Your task to perform on an android device: open sync settings in chrome Image 0: 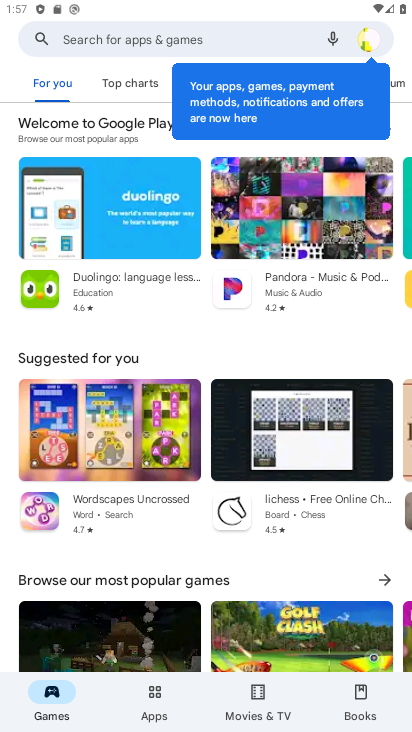
Step 0: press home button
Your task to perform on an android device: open sync settings in chrome Image 1: 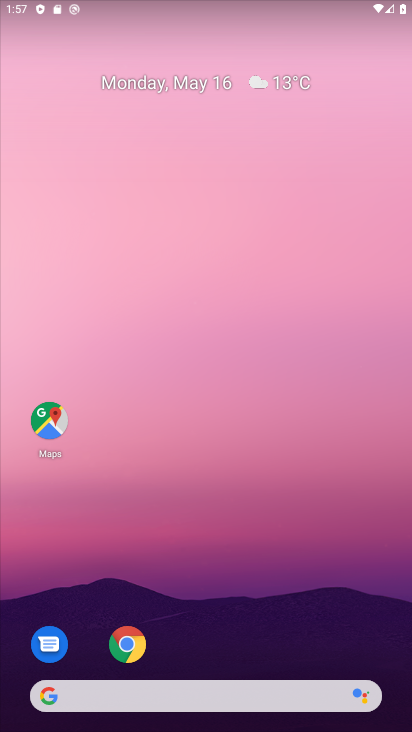
Step 1: click (119, 637)
Your task to perform on an android device: open sync settings in chrome Image 2: 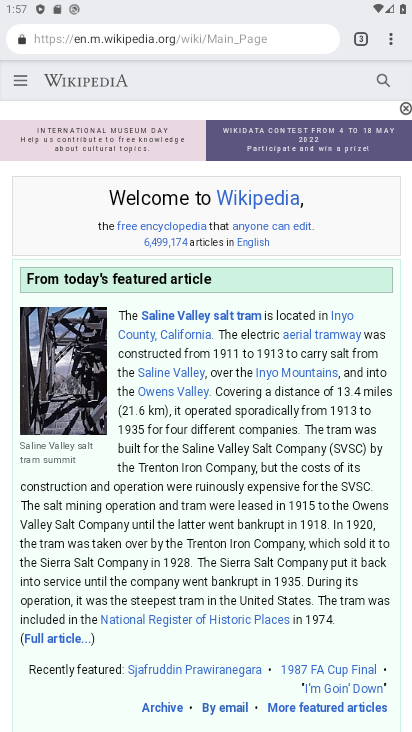
Step 2: click (388, 43)
Your task to perform on an android device: open sync settings in chrome Image 3: 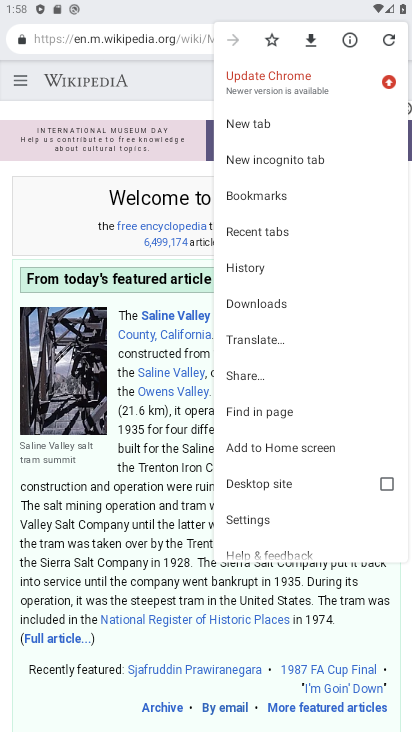
Step 3: click (250, 527)
Your task to perform on an android device: open sync settings in chrome Image 4: 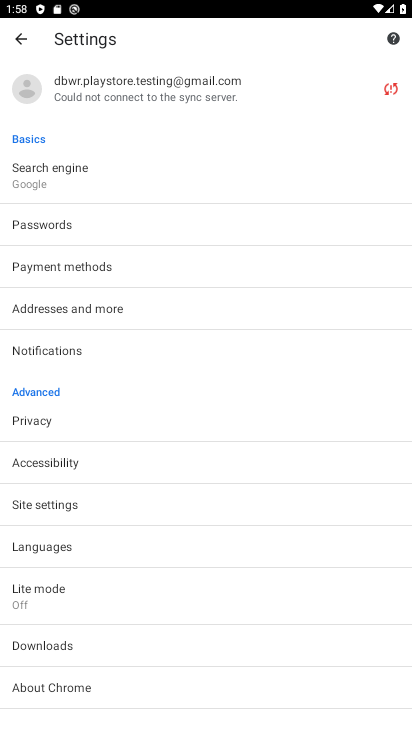
Step 4: drag from (242, 578) to (196, 105)
Your task to perform on an android device: open sync settings in chrome Image 5: 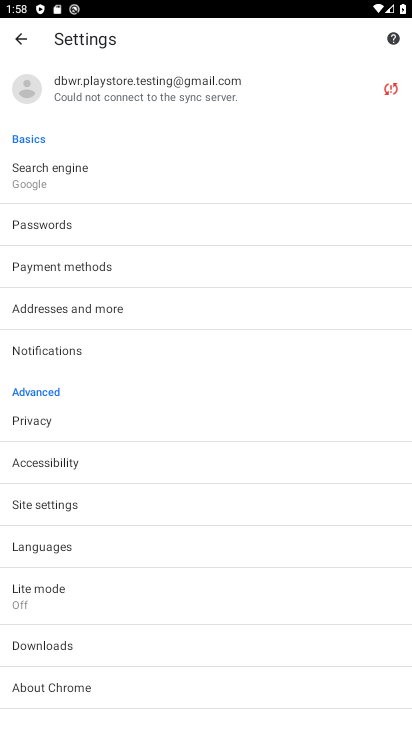
Step 5: drag from (120, 571) to (50, 114)
Your task to perform on an android device: open sync settings in chrome Image 6: 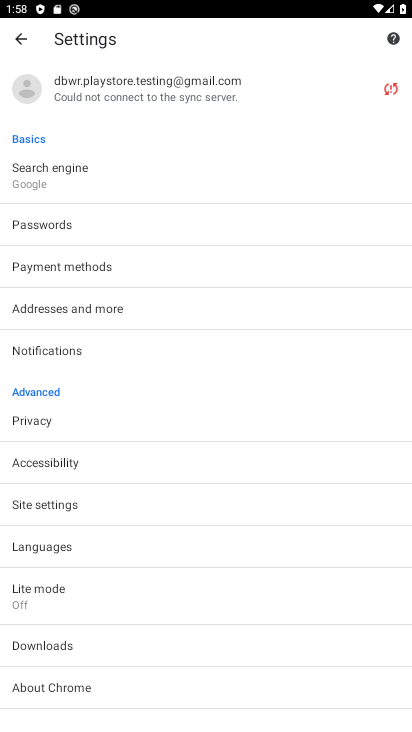
Step 6: click (30, 511)
Your task to perform on an android device: open sync settings in chrome Image 7: 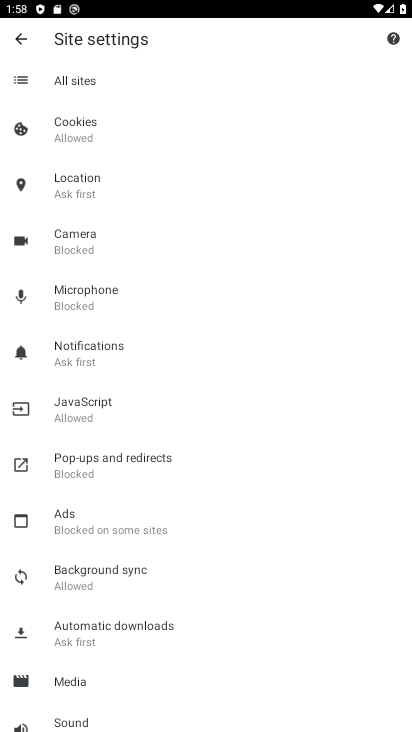
Step 7: drag from (111, 642) to (57, 152)
Your task to perform on an android device: open sync settings in chrome Image 8: 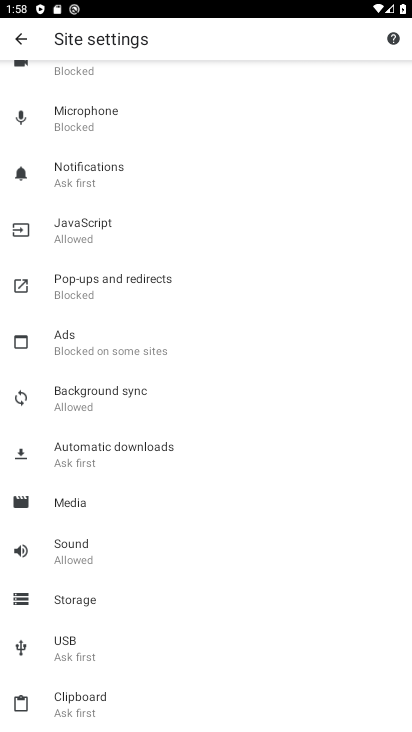
Step 8: drag from (153, 570) to (61, 179)
Your task to perform on an android device: open sync settings in chrome Image 9: 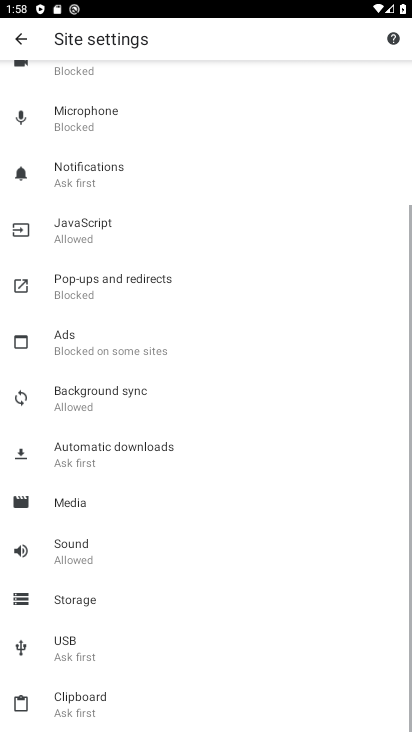
Step 9: drag from (61, 179) to (138, 710)
Your task to perform on an android device: open sync settings in chrome Image 10: 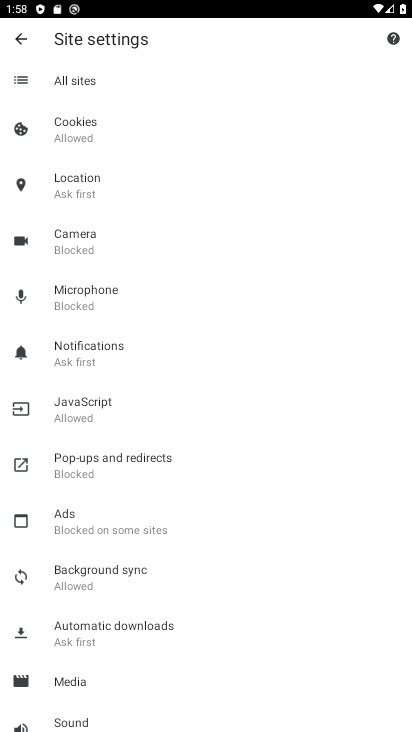
Step 10: click (24, 76)
Your task to perform on an android device: open sync settings in chrome Image 11: 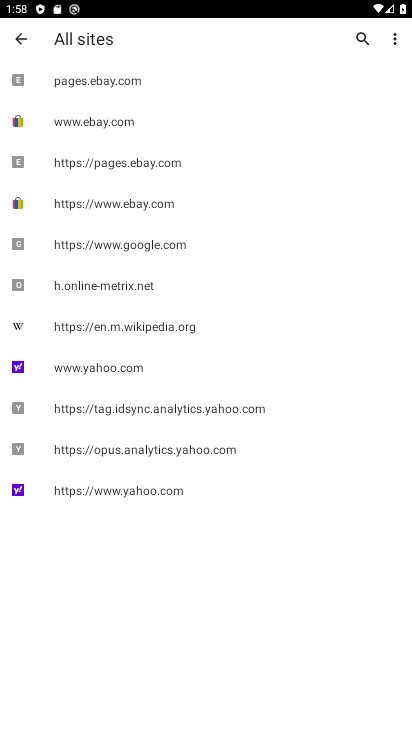
Step 11: task complete